Your task to perform on an android device: toggle improve location accuracy Image 0: 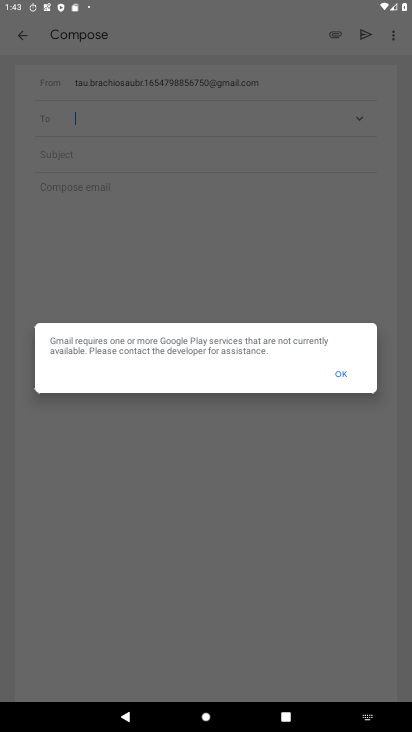
Step 0: press home button
Your task to perform on an android device: toggle improve location accuracy Image 1: 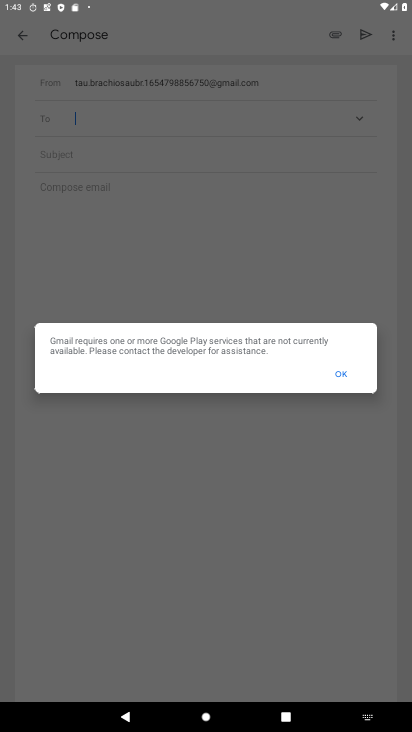
Step 1: drag from (242, 502) to (265, 48)
Your task to perform on an android device: toggle improve location accuracy Image 2: 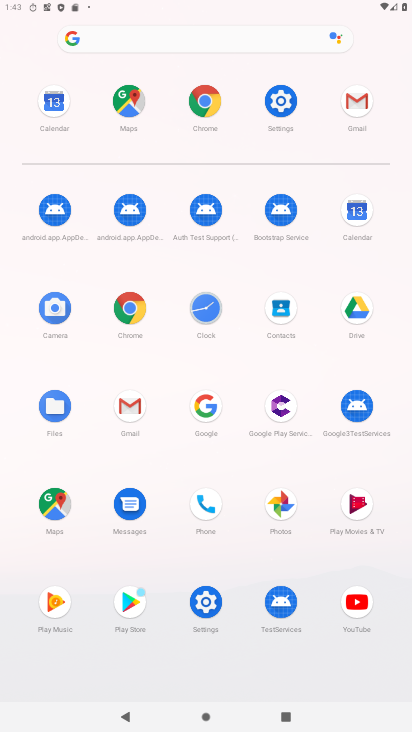
Step 2: click (210, 598)
Your task to perform on an android device: toggle improve location accuracy Image 3: 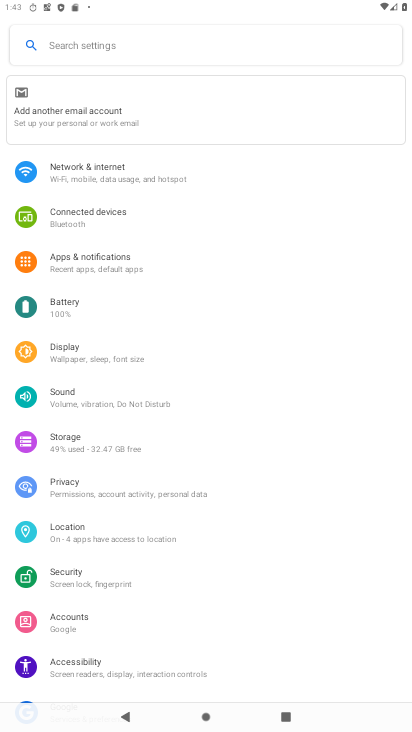
Step 3: click (100, 538)
Your task to perform on an android device: toggle improve location accuracy Image 4: 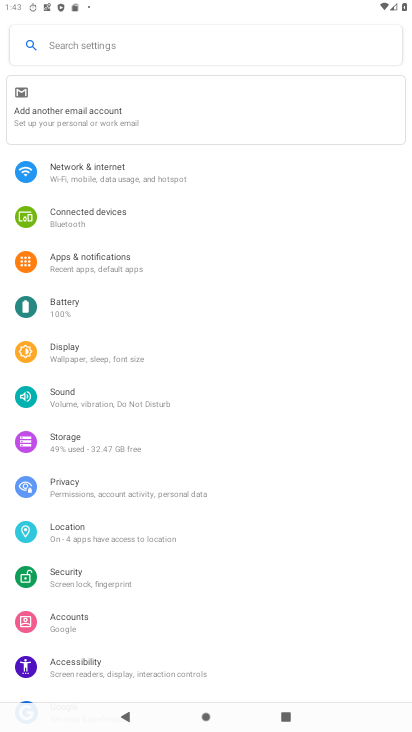
Step 4: click (97, 540)
Your task to perform on an android device: toggle improve location accuracy Image 5: 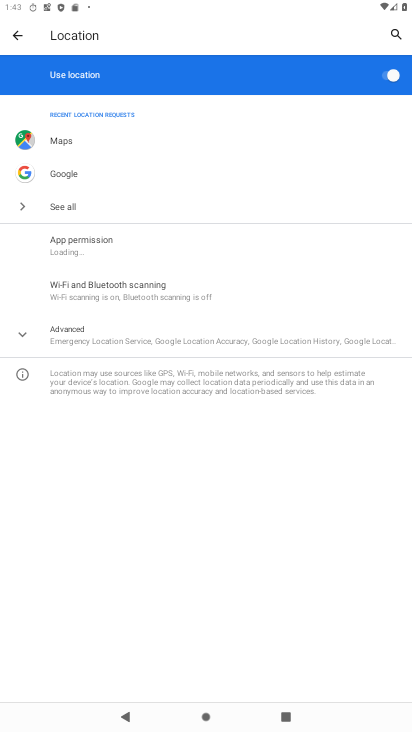
Step 5: click (83, 338)
Your task to perform on an android device: toggle improve location accuracy Image 6: 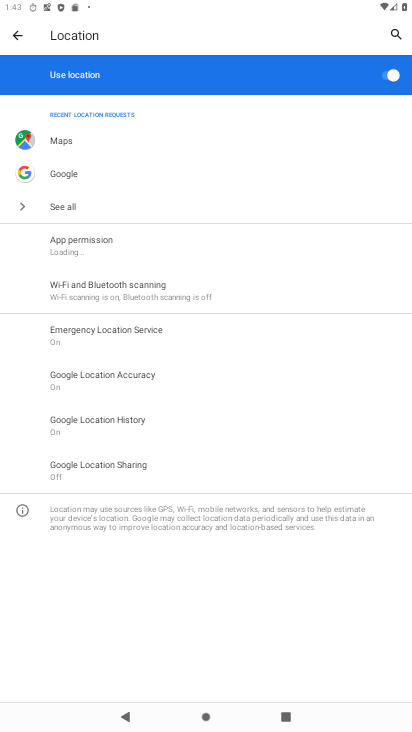
Step 6: click (149, 371)
Your task to perform on an android device: toggle improve location accuracy Image 7: 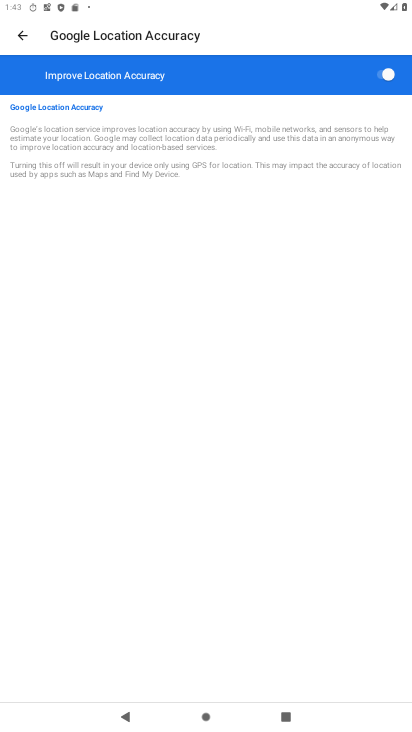
Step 7: drag from (195, 276) to (200, 444)
Your task to perform on an android device: toggle improve location accuracy Image 8: 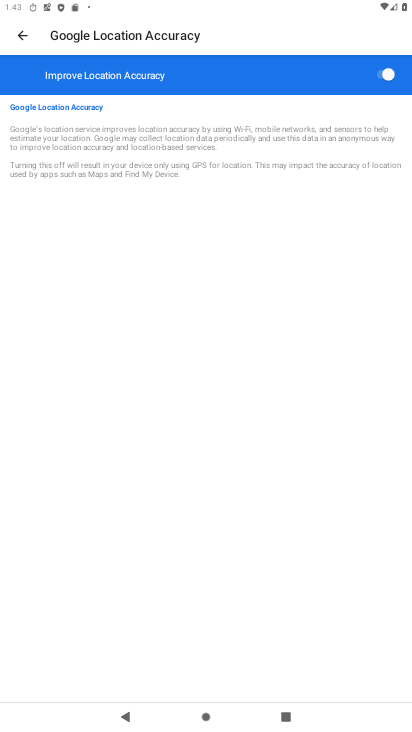
Step 8: click (234, 371)
Your task to perform on an android device: toggle improve location accuracy Image 9: 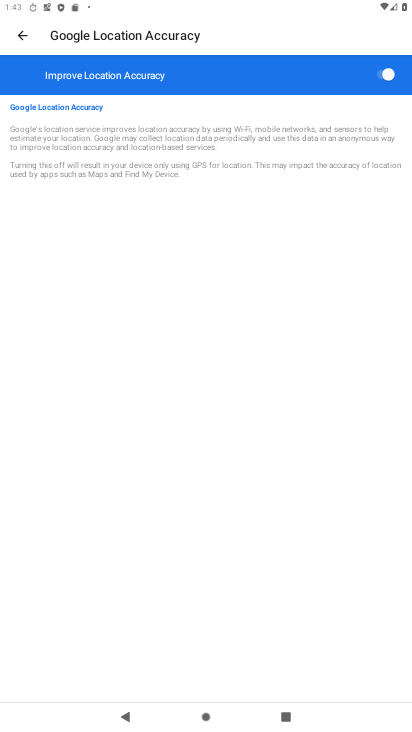
Step 9: click (223, 325)
Your task to perform on an android device: toggle improve location accuracy Image 10: 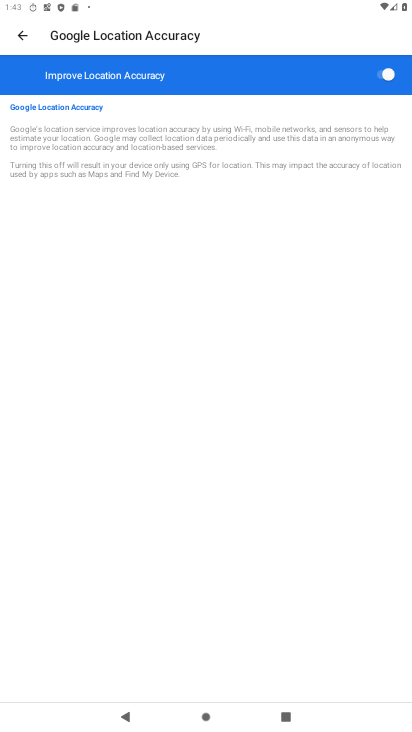
Step 10: click (223, 324)
Your task to perform on an android device: toggle improve location accuracy Image 11: 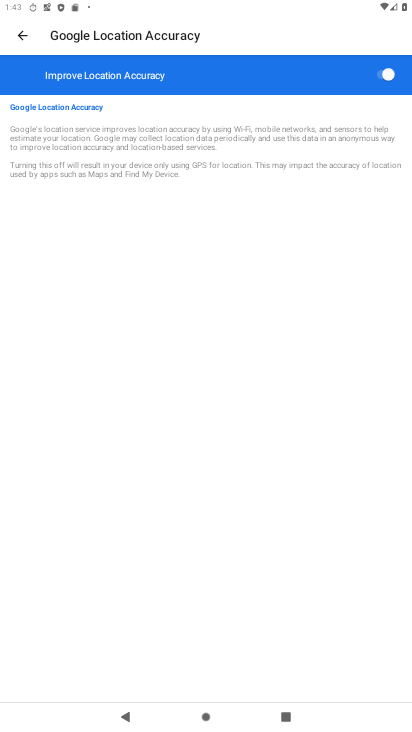
Step 11: click (183, 207)
Your task to perform on an android device: toggle improve location accuracy Image 12: 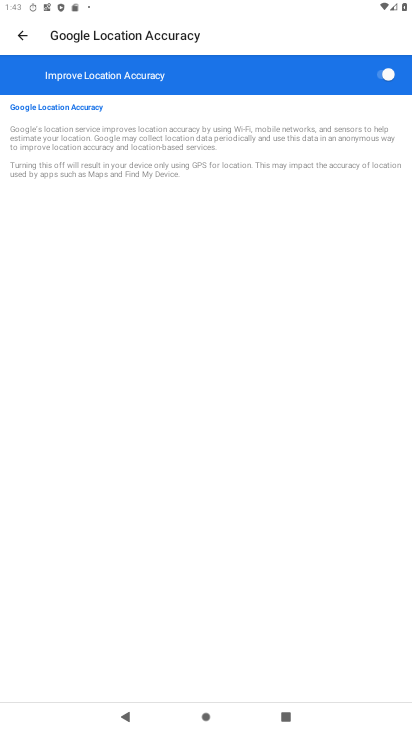
Step 12: drag from (182, 225) to (225, 515)
Your task to perform on an android device: toggle improve location accuracy Image 13: 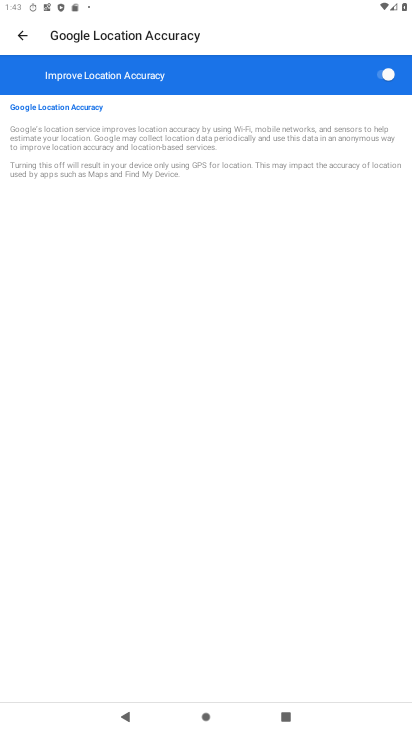
Step 13: click (207, 508)
Your task to perform on an android device: toggle improve location accuracy Image 14: 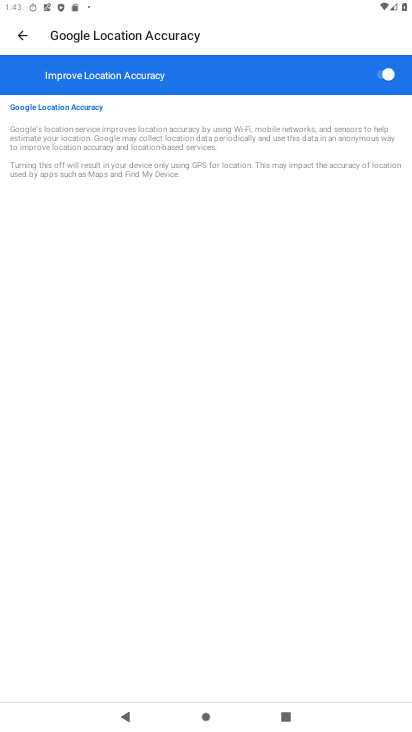
Step 14: click (204, 501)
Your task to perform on an android device: toggle improve location accuracy Image 15: 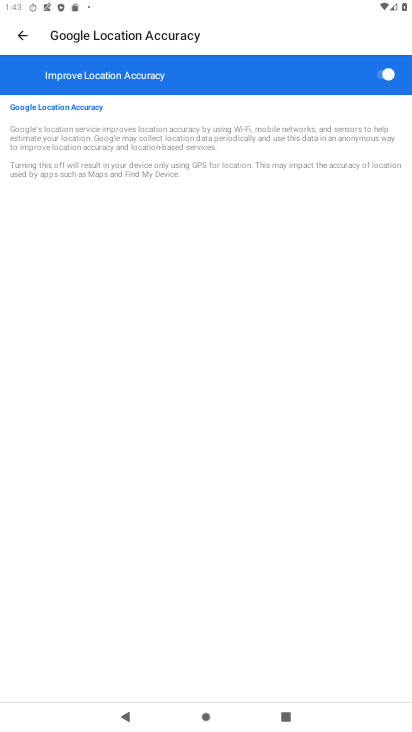
Step 15: click (202, 334)
Your task to perform on an android device: toggle improve location accuracy Image 16: 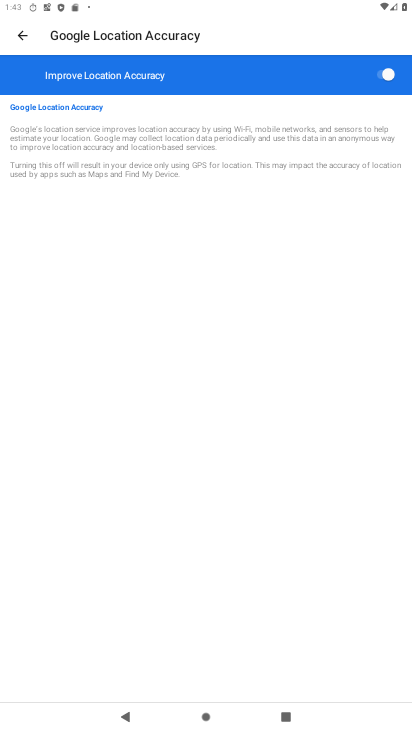
Step 16: click (282, 259)
Your task to perform on an android device: toggle improve location accuracy Image 17: 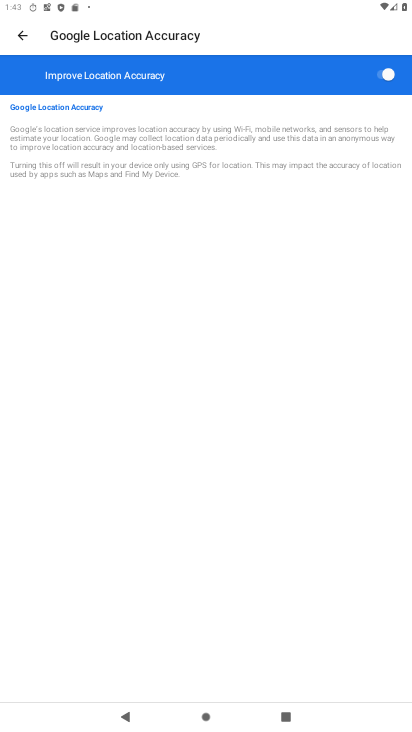
Step 17: task complete